Your task to perform on an android device: make emails show in primary in the gmail app Image 0: 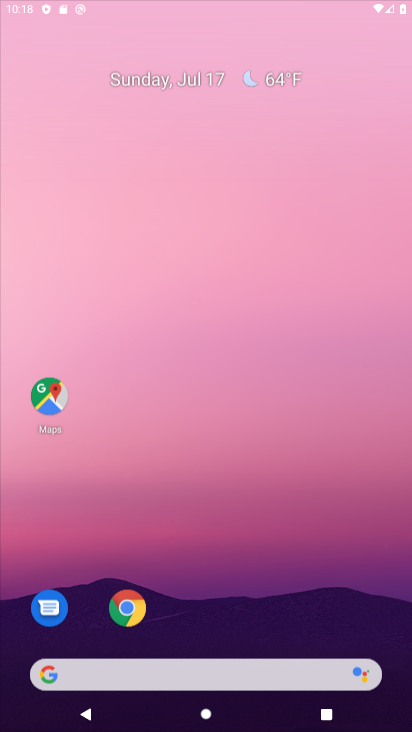
Step 0: click (232, 2)
Your task to perform on an android device: make emails show in primary in the gmail app Image 1: 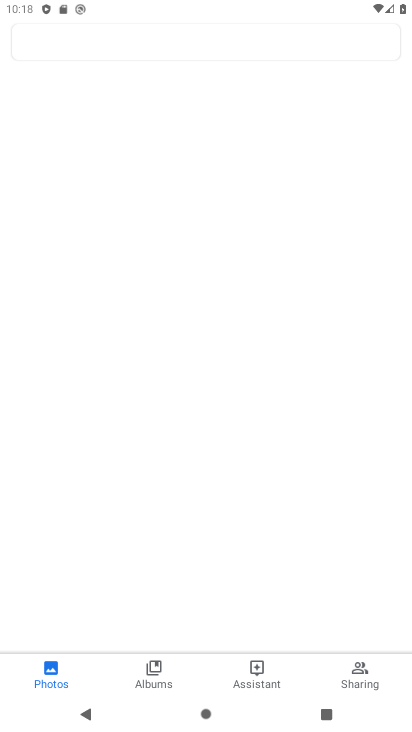
Step 1: press home button
Your task to perform on an android device: make emails show in primary in the gmail app Image 2: 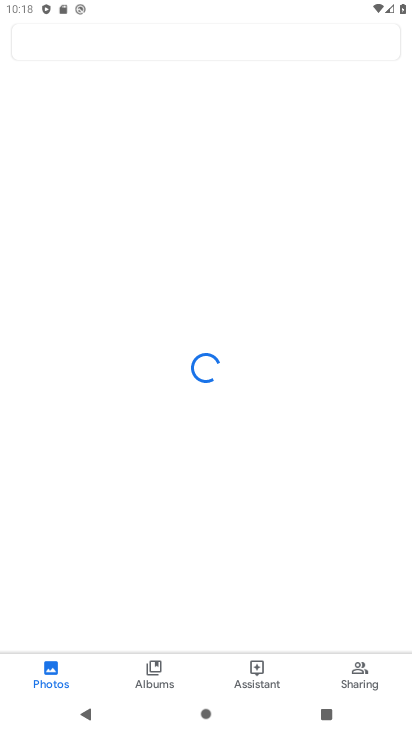
Step 2: drag from (336, 529) to (249, 16)
Your task to perform on an android device: make emails show in primary in the gmail app Image 3: 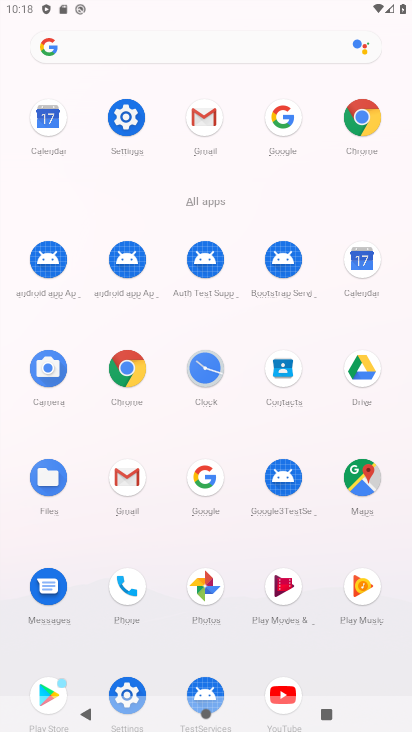
Step 3: click (132, 483)
Your task to perform on an android device: make emails show in primary in the gmail app Image 4: 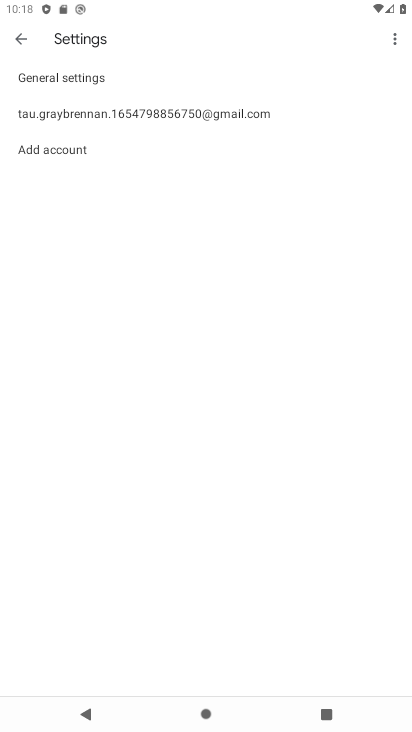
Step 4: task complete